Your task to perform on an android device: toggle location history Image 0: 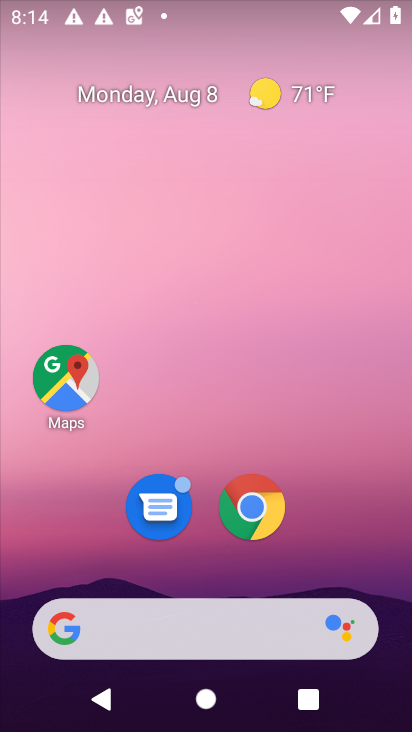
Step 0: drag from (192, 593) to (369, 39)
Your task to perform on an android device: toggle location history Image 1: 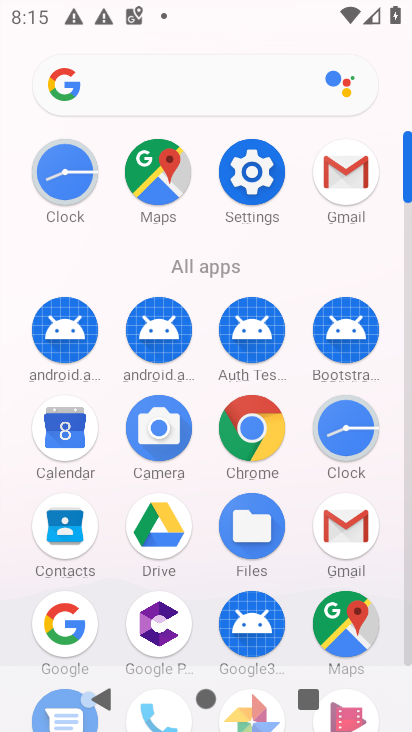
Step 1: click (247, 194)
Your task to perform on an android device: toggle location history Image 2: 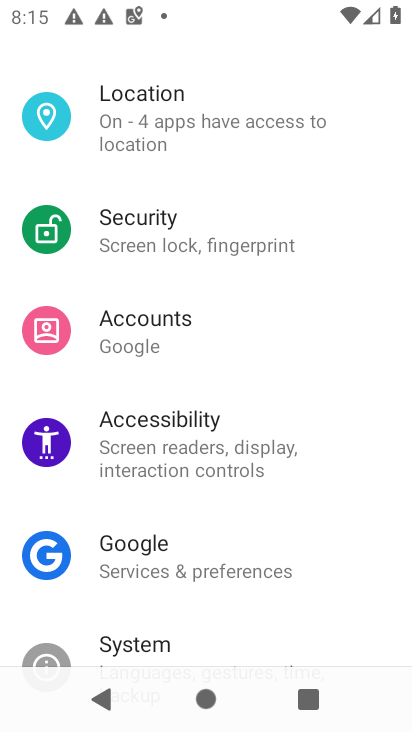
Step 2: click (298, 129)
Your task to perform on an android device: toggle location history Image 3: 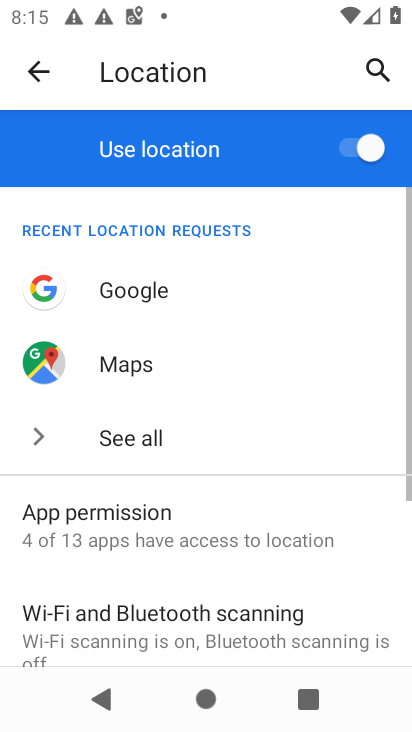
Step 3: drag from (189, 496) to (153, 231)
Your task to perform on an android device: toggle location history Image 4: 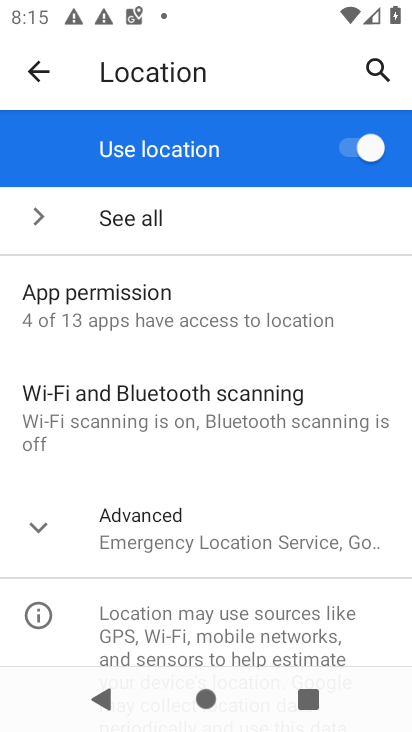
Step 4: click (35, 563)
Your task to perform on an android device: toggle location history Image 5: 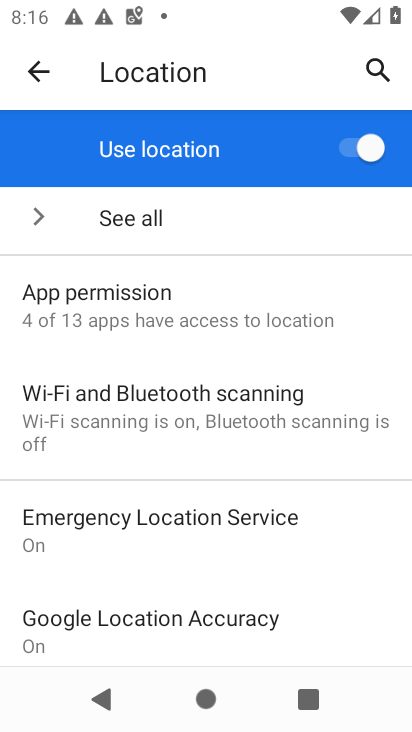
Step 5: drag from (283, 599) to (177, 53)
Your task to perform on an android device: toggle location history Image 6: 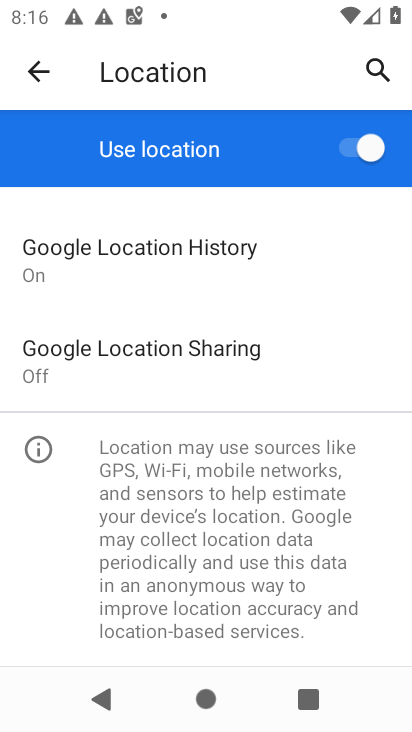
Step 6: click (252, 250)
Your task to perform on an android device: toggle location history Image 7: 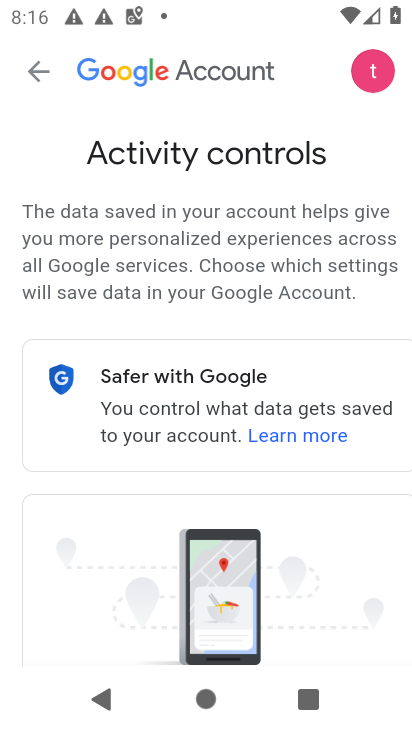
Step 7: drag from (375, 466) to (332, 49)
Your task to perform on an android device: toggle location history Image 8: 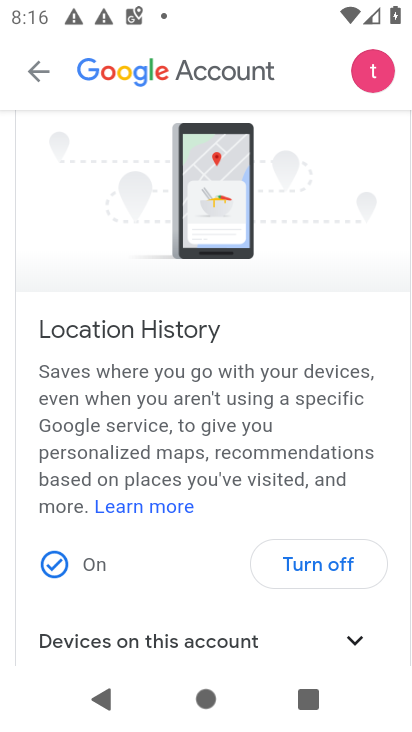
Step 8: click (292, 560)
Your task to perform on an android device: toggle location history Image 9: 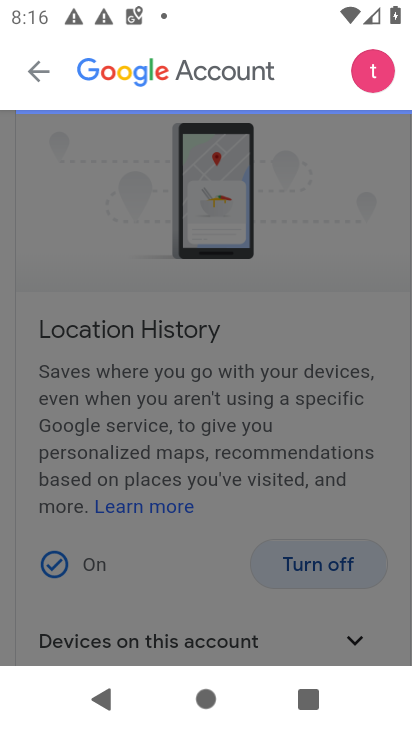
Step 9: click (292, 560)
Your task to perform on an android device: toggle location history Image 10: 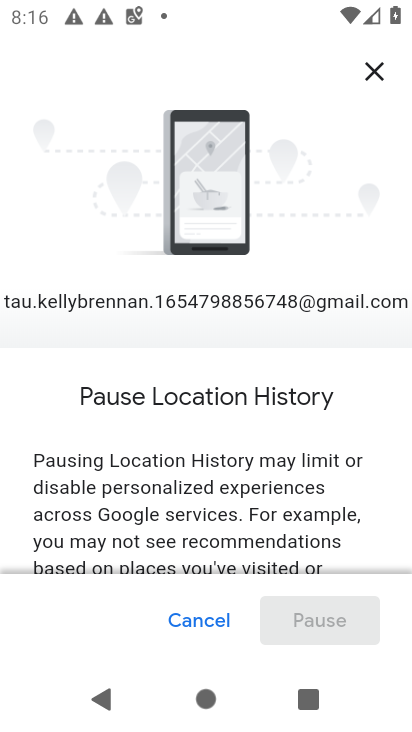
Step 10: drag from (356, 558) to (316, 55)
Your task to perform on an android device: toggle location history Image 11: 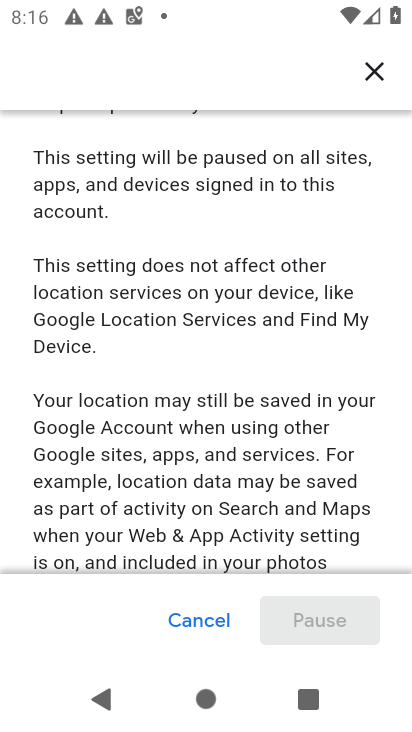
Step 11: drag from (350, 515) to (164, 140)
Your task to perform on an android device: toggle location history Image 12: 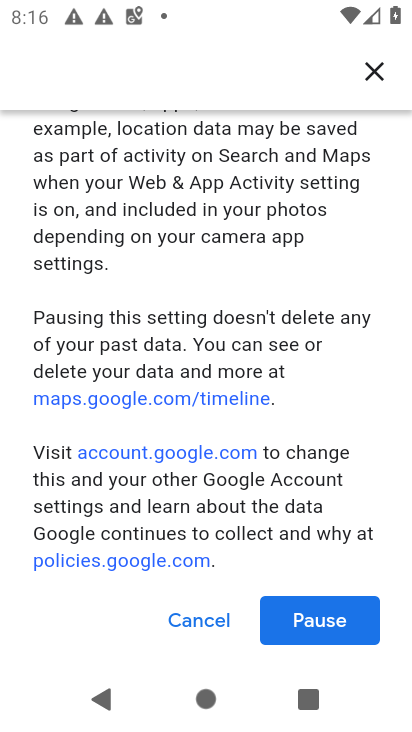
Step 12: click (302, 615)
Your task to perform on an android device: toggle location history Image 13: 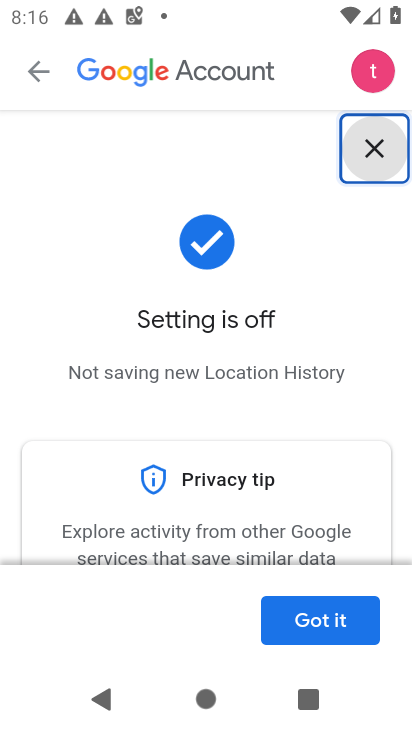
Step 13: click (302, 615)
Your task to perform on an android device: toggle location history Image 14: 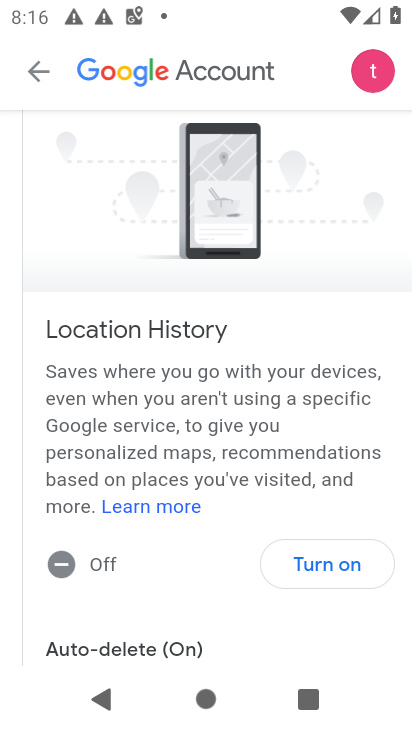
Step 14: task complete